Your task to perform on an android device: open wifi settings Image 0: 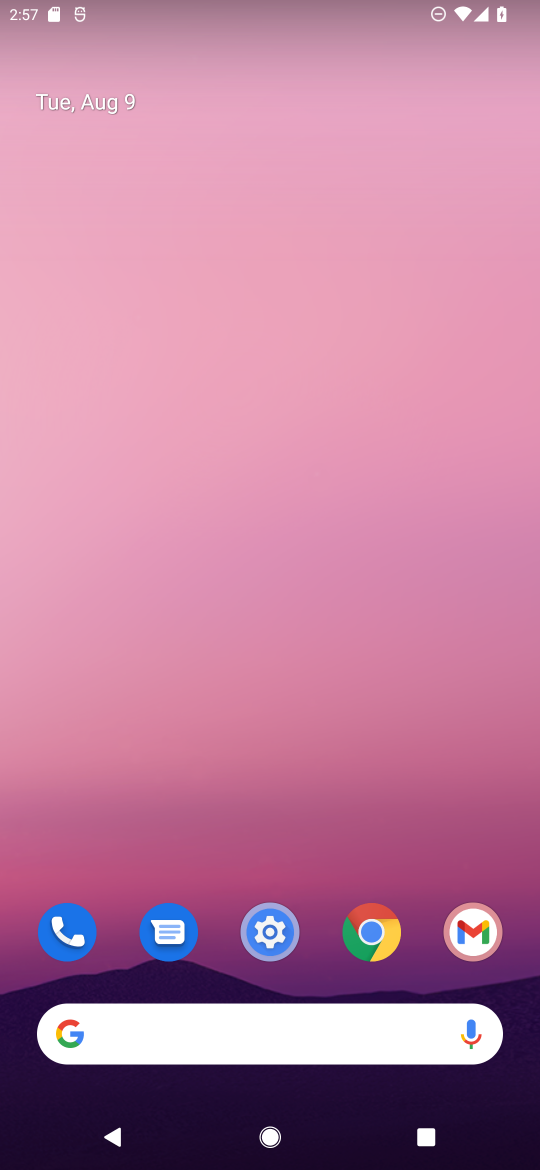
Step 0: click (256, 914)
Your task to perform on an android device: open wifi settings Image 1: 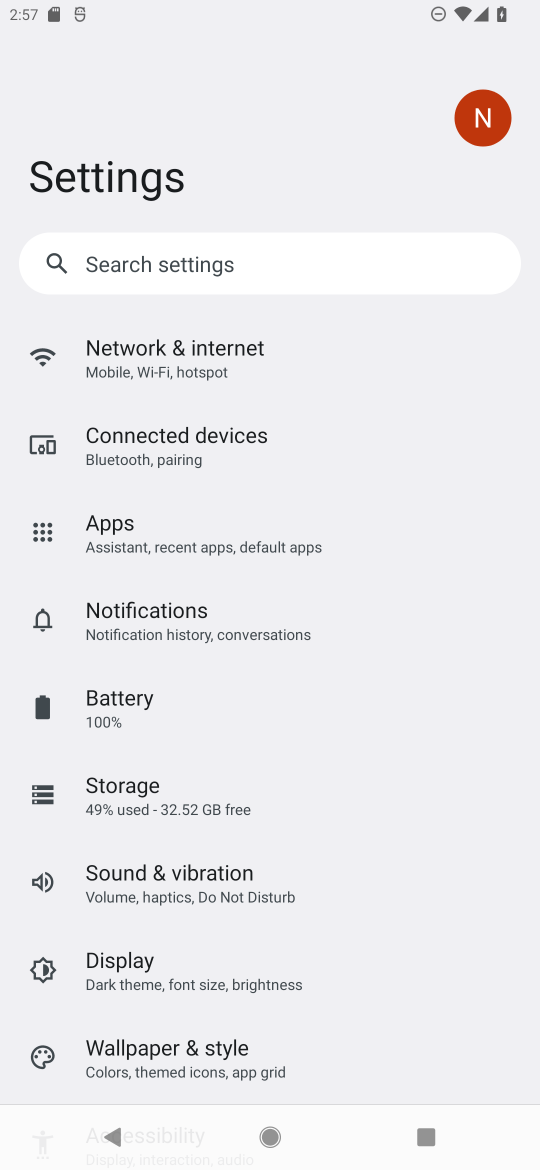
Step 1: click (179, 379)
Your task to perform on an android device: open wifi settings Image 2: 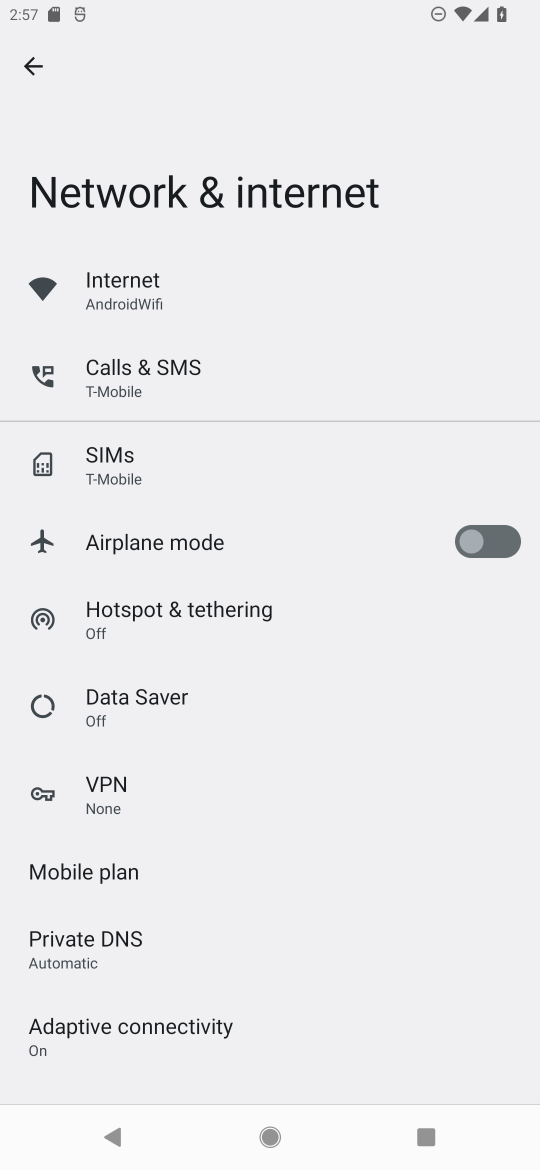
Step 2: click (159, 295)
Your task to perform on an android device: open wifi settings Image 3: 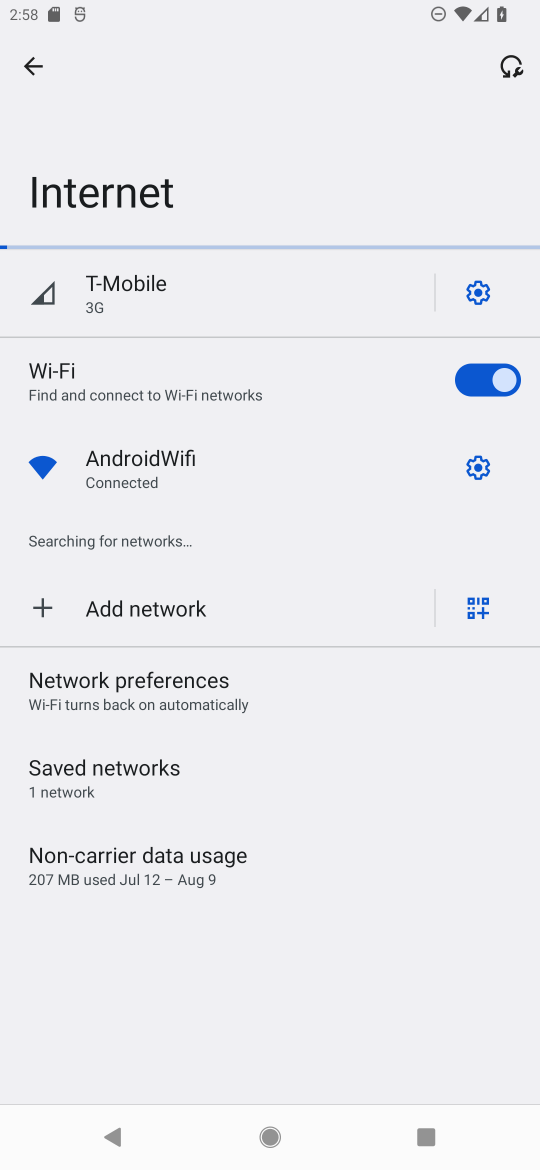
Step 3: task complete